Your task to perform on an android device: turn on notifications settings in the gmail app Image 0: 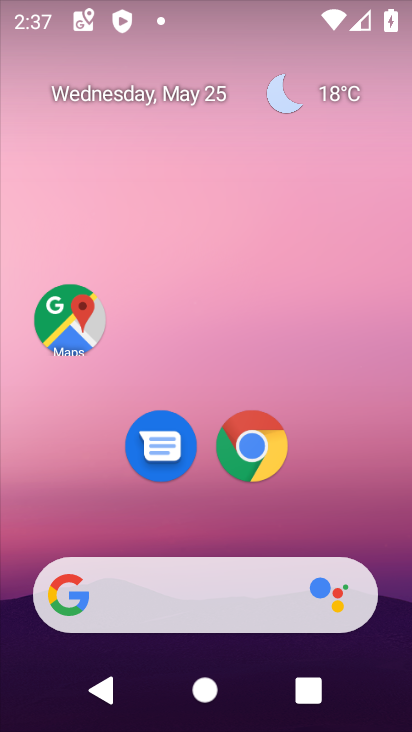
Step 0: click (195, 299)
Your task to perform on an android device: turn on notifications settings in the gmail app Image 1: 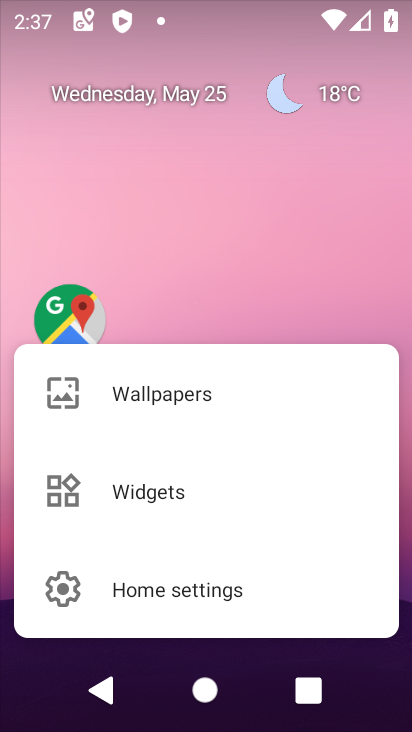
Step 1: click (272, 287)
Your task to perform on an android device: turn on notifications settings in the gmail app Image 2: 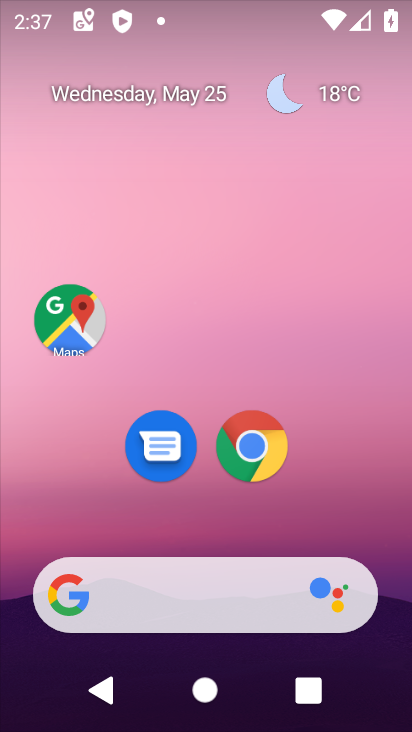
Step 2: drag from (208, 572) to (196, 358)
Your task to perform on an android device: turn on notifications settings in the gmail app Image 3: 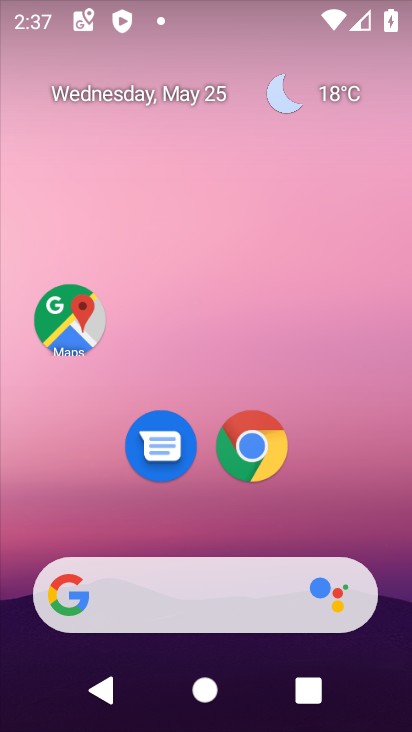
Step 3: drag from (210, 552) to (254, 205)
Your task to perform on an android device: turn on notifications settings in the gmail app Image 4: 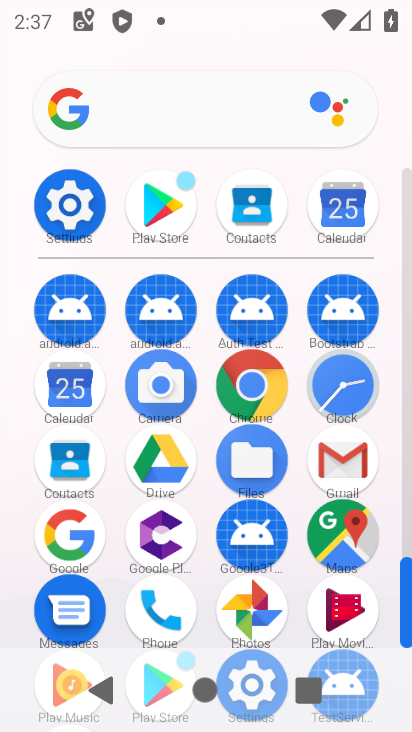
Step 4: click (325, 441)
Your task to perform on an android device: turn on notifications settings in the gmail app Image 5: 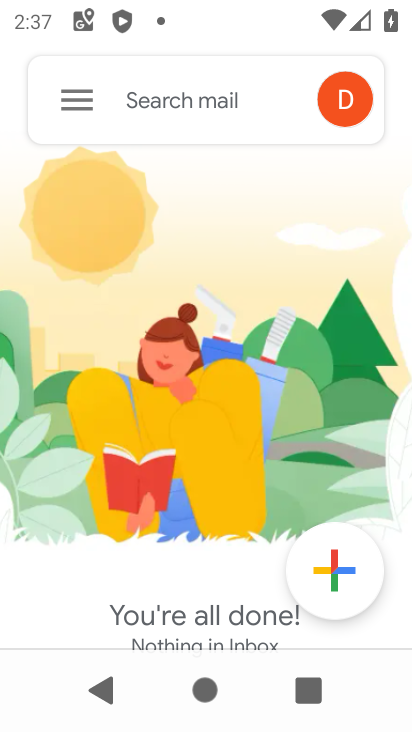
Step 5: click (64, 121)
Your task to perform on an android device: turn on notifications settings in the gmail app Image 6: 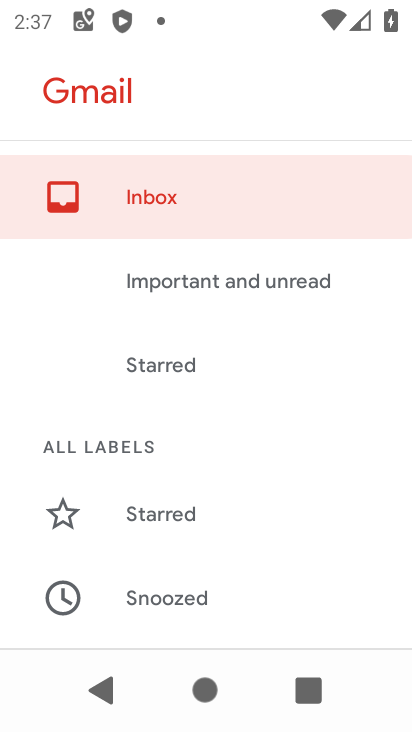
Step 6: drag from (182, 557) to (174, 156)
Your task to perform on an android device: turn on notifications settings in the gmail app Image 7: 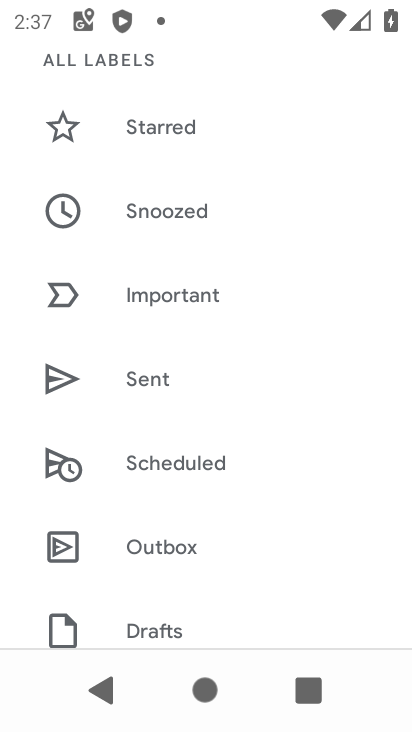
Step 7: drag from (178, 497) to (179, 145)
Your task to perform on an android device: turn on notifications settings in the gmail app Image 8: 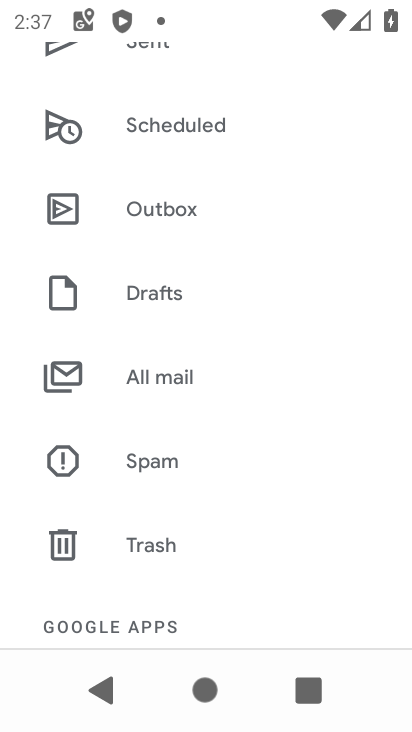
Step 8: drag from (211, 482) to (195, 104)
Your task to perform on an android device: turn on notifications settings in the gmail app Image 9: 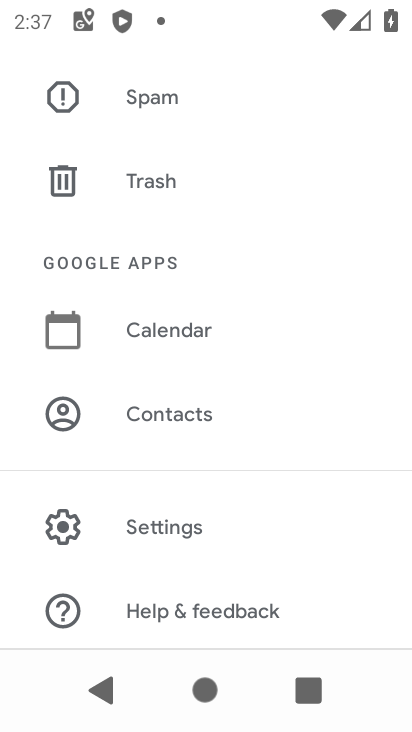
Step 9: click (199, 509)
Your task to perform on an android device: turn on notifications settings in the gmail app Image 10: 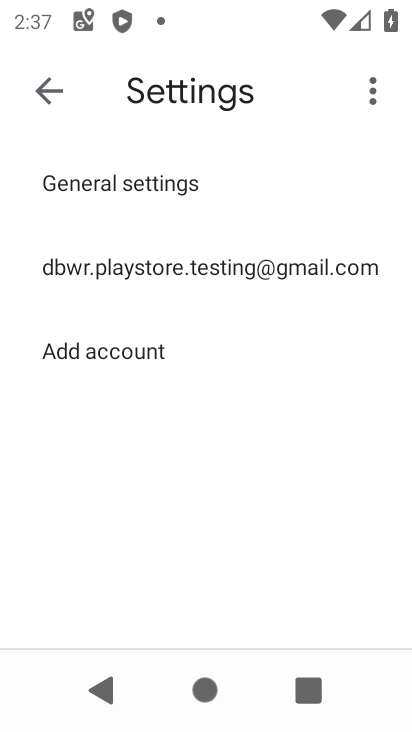
Step 10: click (150, 276)
Your task to perform on an android device: turn on notifications settings in the gmail app Image 11: 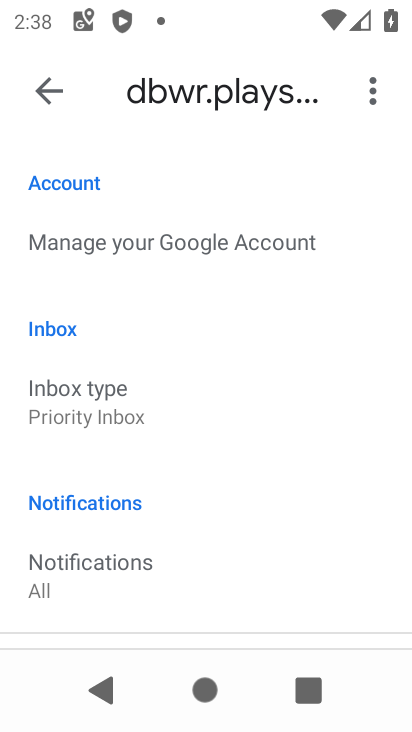
Step 11: drag from (169, 509) to (195, 219)
Your task to perform on an android device: turn on notifications settings in the gmail app Image 12: 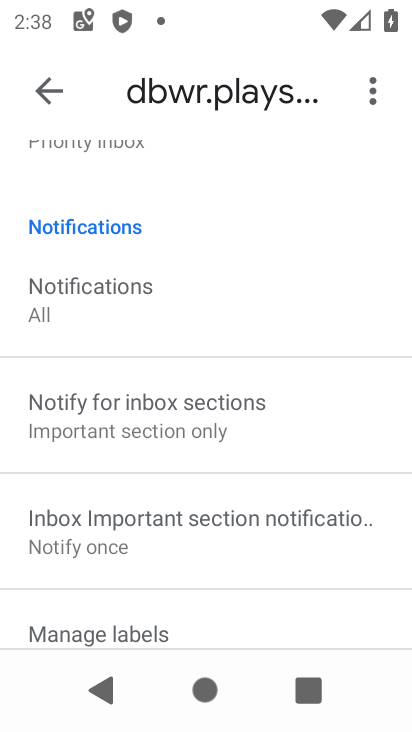
Step 12: drag from (221, 516) to (225, 309)
Your task to perform on an android device: turn on notifications settings in the gmail app Image 13: 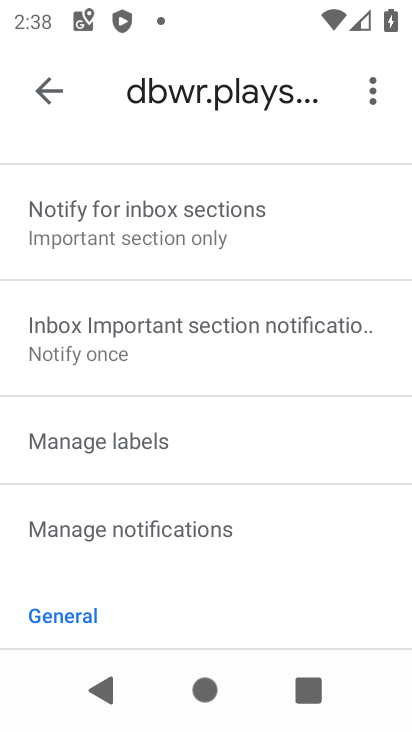
Step 13: click (250, 509)
Your task to perform on an android device: turn on notifications settings in the gmail app Image 14: 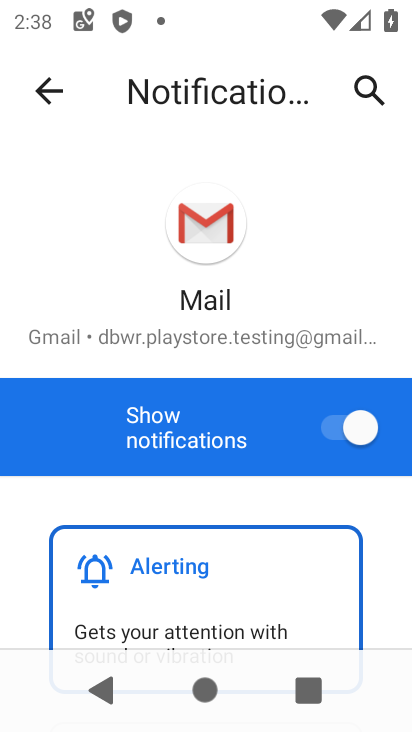
Step 14: task complete